Your task to perform on an android device: turn on bluetooth scan Image 0: 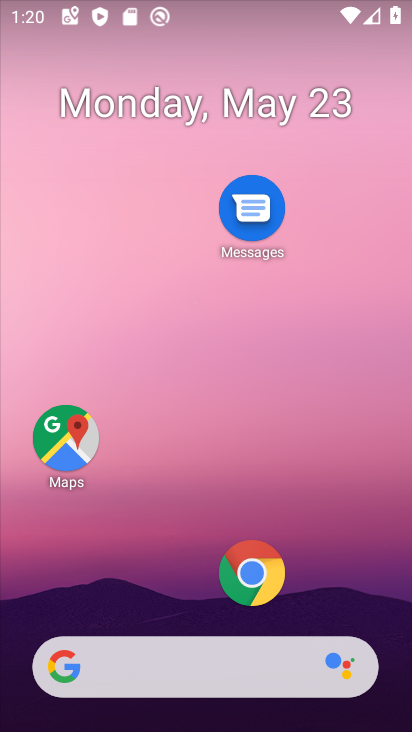
Step 0: drag from (171, 557) to (277, 144)
Your task to perform on an android device: turn on bluetooth scan Image 1: 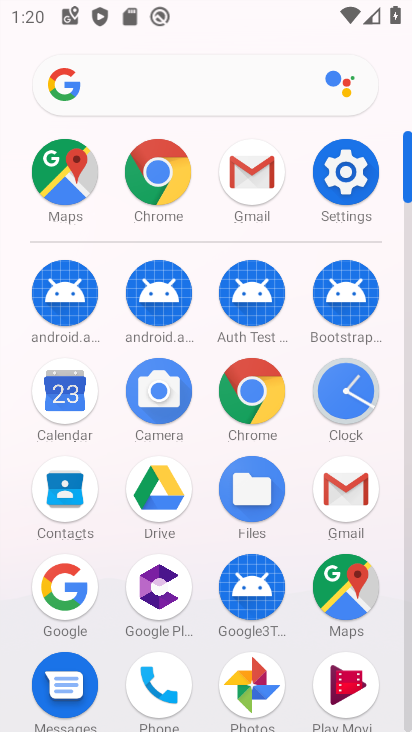
Step 1: click (342, 184)
Your task to perform on an android device: turn on bluetooth scan Image 2: 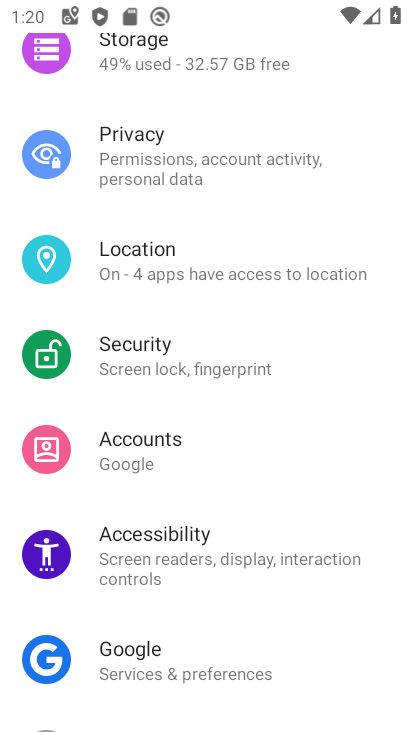
Step 2: drag from (337, 219) to (296, 589)
Your task to perform on an android device: turn on bluetooth scan Image 3: 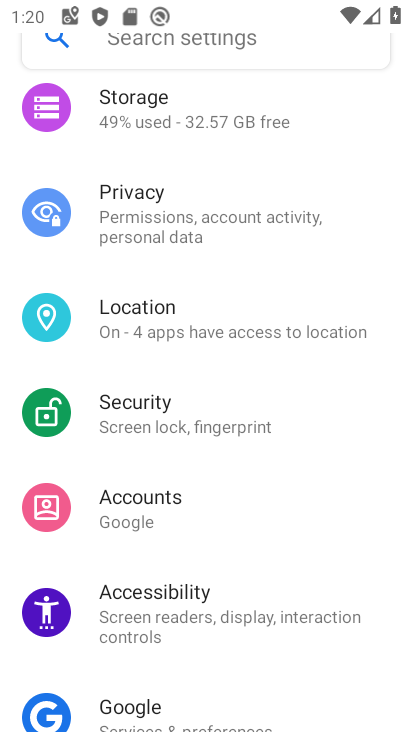
Step 3: drag from (306, 141) to (246, 537)
Your task to perform on an android device: turn on bluetooth scan Image 4: 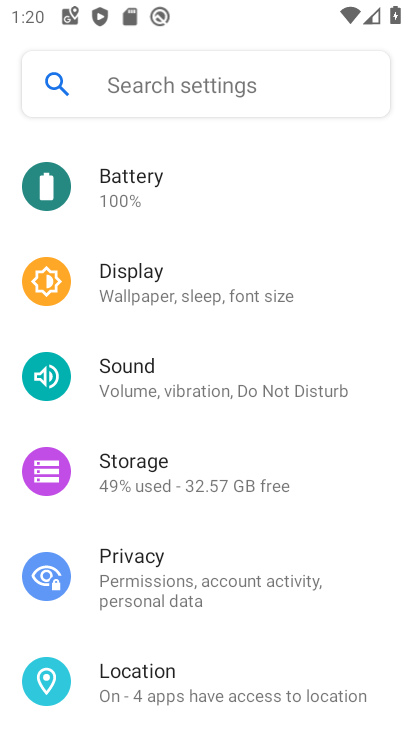
Step 4: drag from (276, 198) to (246, 574)
Your task to perform on an android device: turn on bluetooth scan Image 5: 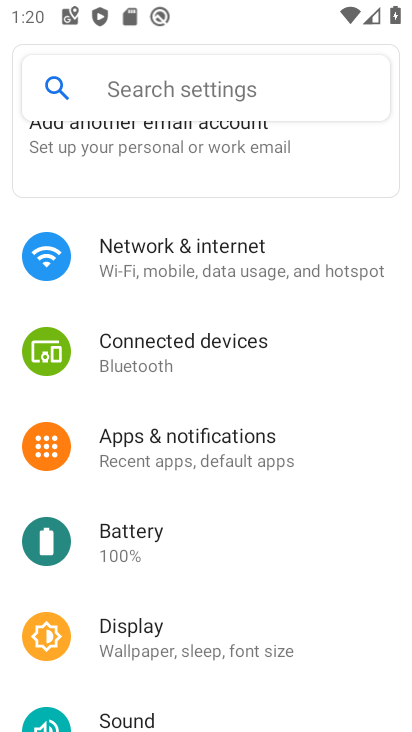
Step 5: click (212, 347)
Your task to perform on an android device: turn on bluetooth scan Image 6: 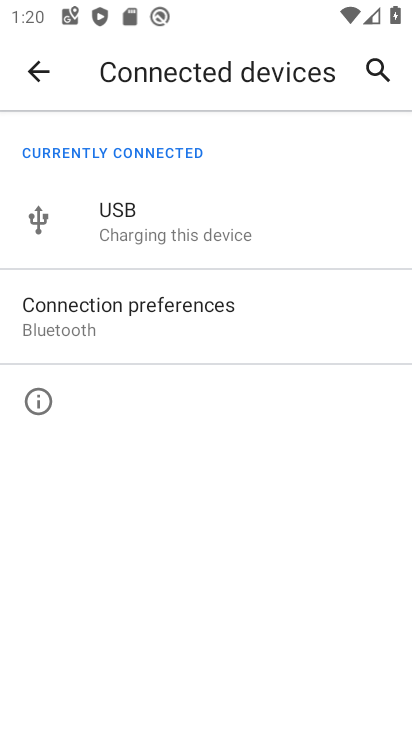
Step 6: click (36, 72)
Your task to perform on an android device: turn on bluetooth scan Image 7: 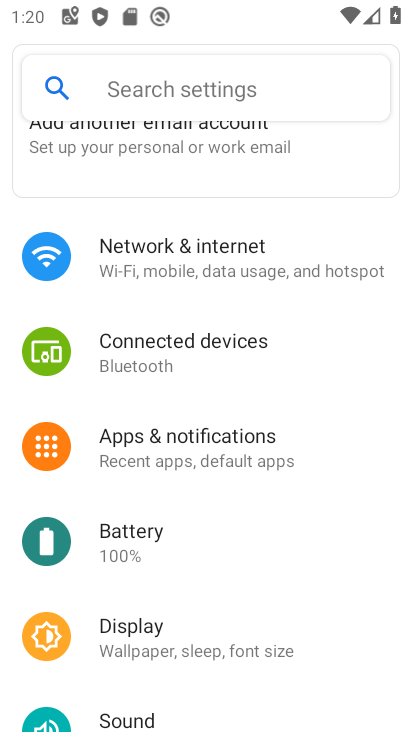
Step 7: click (287, 270)
Your task to perform on an android device: turn on bluetooth scan Image 8: 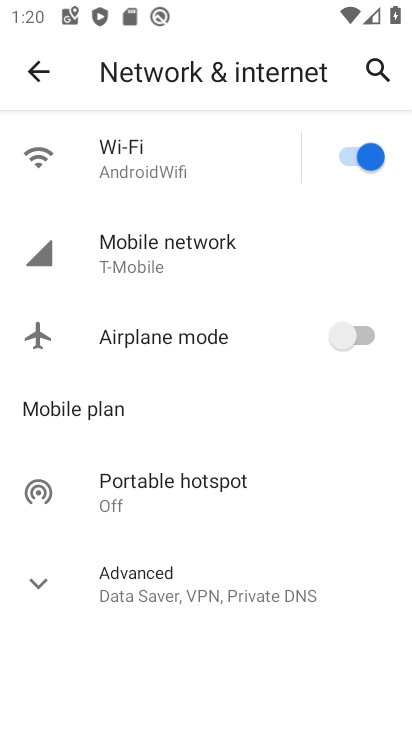
Step 8: click (38, 575)
Your task to perform on an android device: turn on bluetooth scan Image 9: 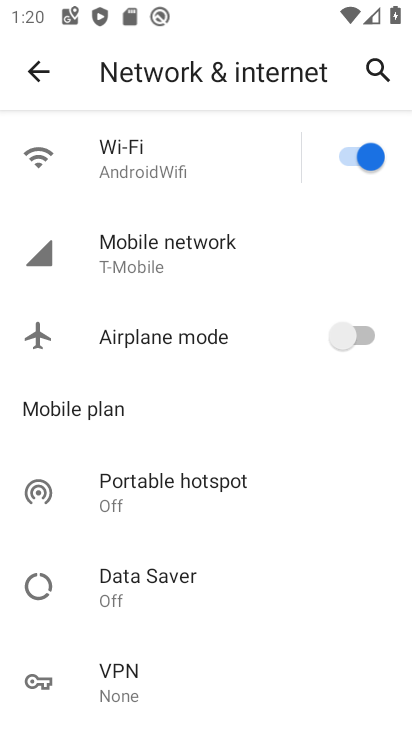
Step 9: drag from (295, 583) to (322, 285)
Your task to perform on an android device: turn on bluetooth scan Image 10: 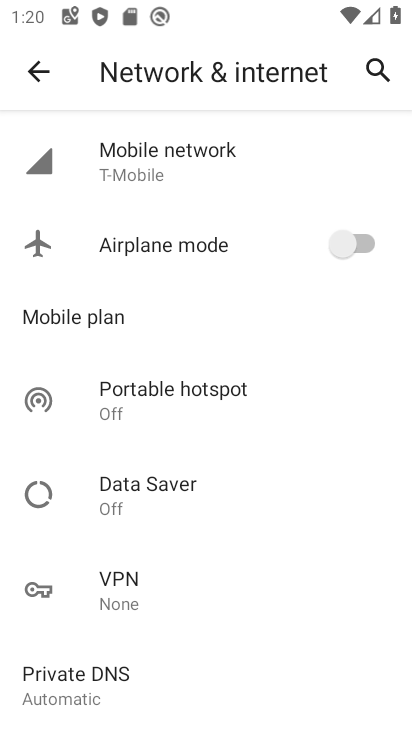
Step 10: drag from (307, 351) to (265, 590)
Your task to perform on an android device: turn on bluetooth scan Image 11: 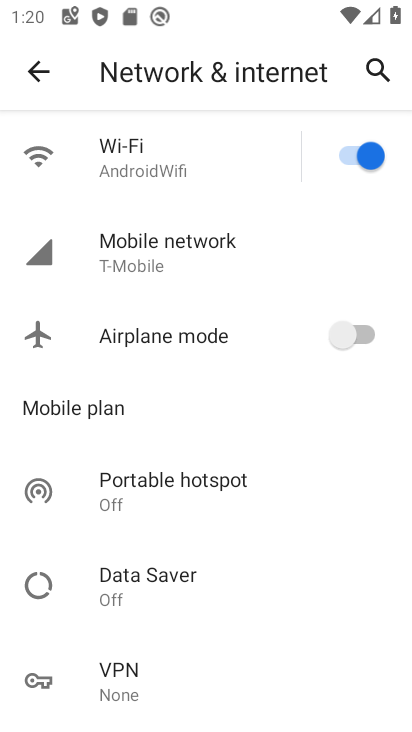
Step 11: press back button
Your task to perform on an android device: turn on bluetooth scan Image 12: 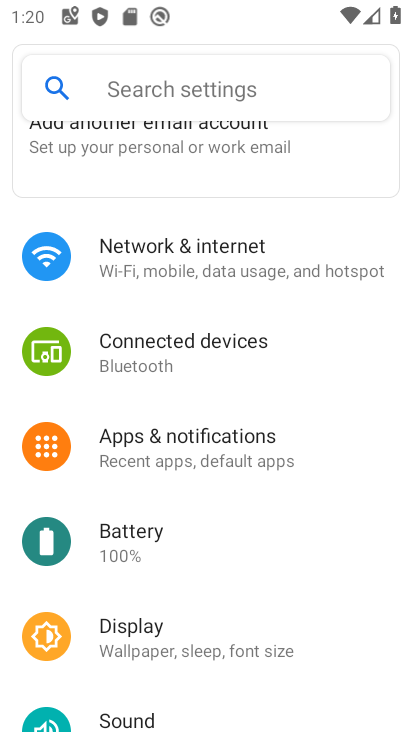
Step 12: click (185, 349)
Your task to perform on an android device: turn on bluetooth scan Image 13: 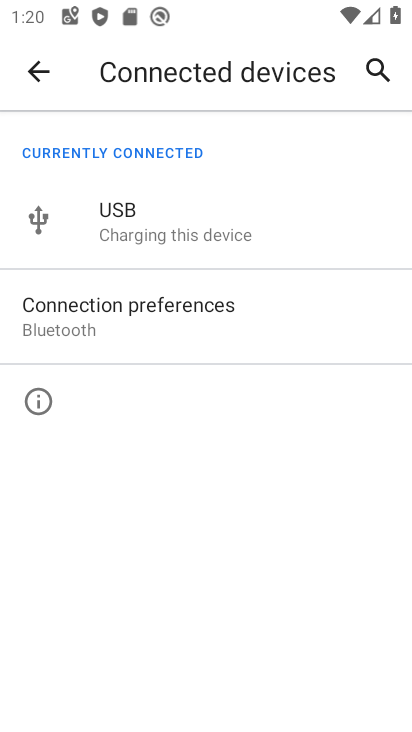
Step 13: press back button
Your task to perform on an android device: turn on bluetooth scan Image 14: 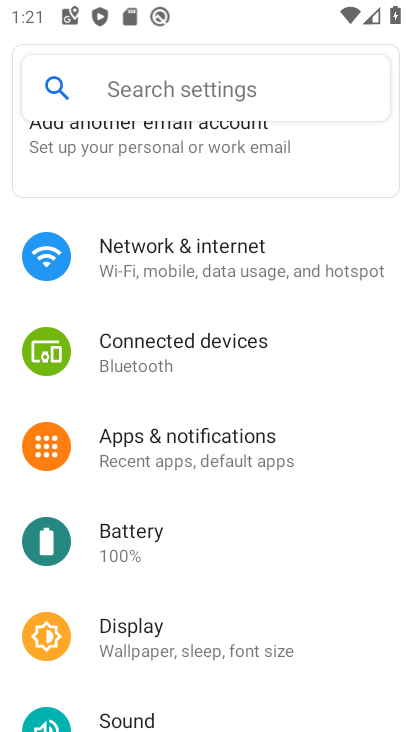
Step 14: drag from (374, 1) to (218, 488)
Your task to perform on an android device: turn on bluetooth scan Image 15: 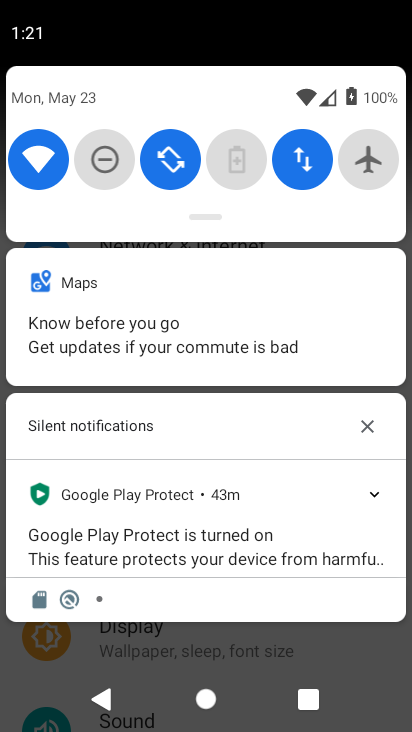
Step 15: drag from (356, 173) to (20, 146)
Your task to perform on an android device: turn on bluetooth scan Image 16: 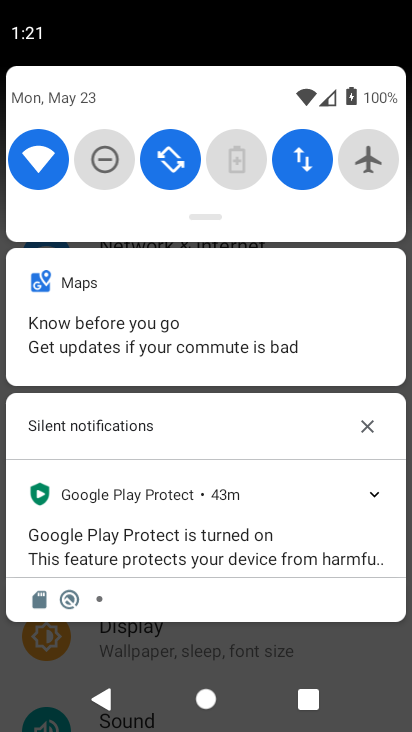
Step 16: click (212, 216)
Your task to perform on an android device: turn on bluetooth scan Image 17: 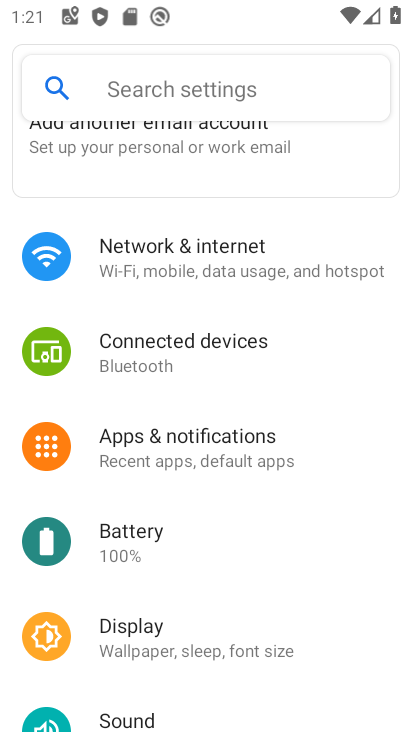
Step 17: drag from (383, 1) to (198, 578)
Your task to perform on an android device: turn on bluetooth scan Image 18: 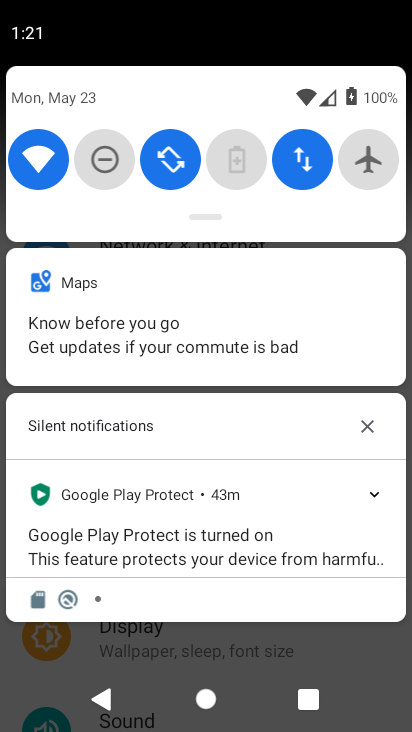
Step 18: drag from (210, 213) to (160, 559)
Your task to perform on an android device: turn on bluetooth scan Image 19: 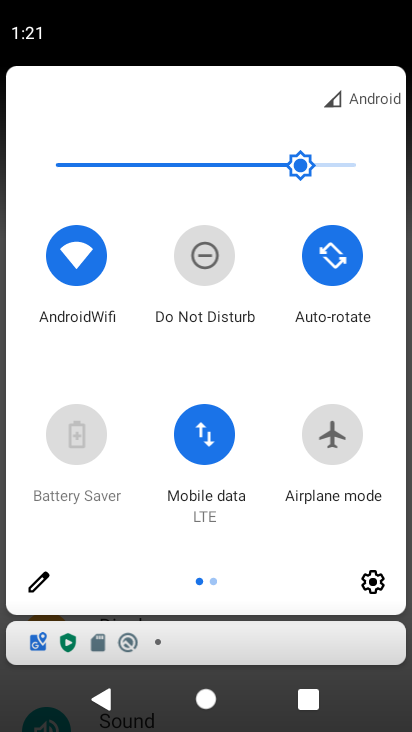
Step 19: drag from (326, 430) to (88, 391)
Your task to perform on an android device: turn on bluetooth scan Image 20: 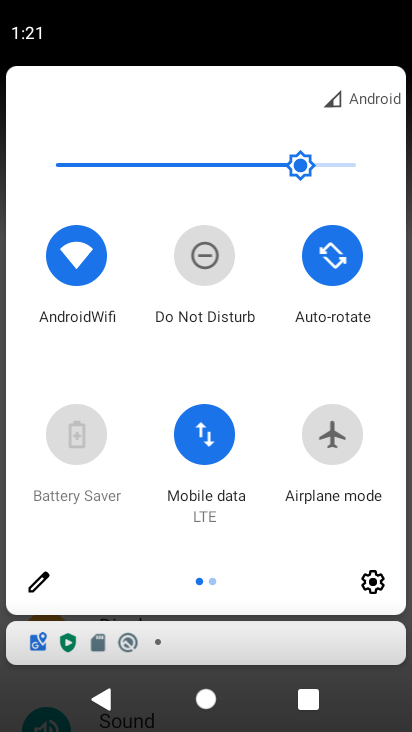
Step 20: drag from (296, 385) to (43, 407)
Your task to perform on an android device: turn on bluetooth scan Image 21: 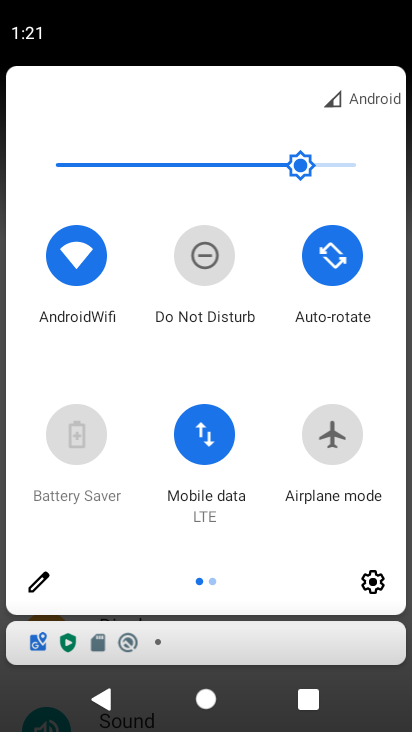
Step 21: drag from (172, 658) to (185, 115)
Your task to perform on an android device: turn on bluetooth scan Image 22: 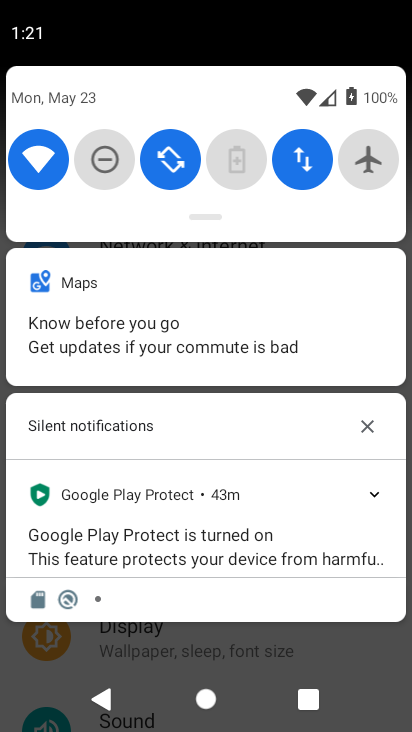
Step 22: click (149, 671)
Your task to perform on an android device: turn on bluetooth scan Image 23: 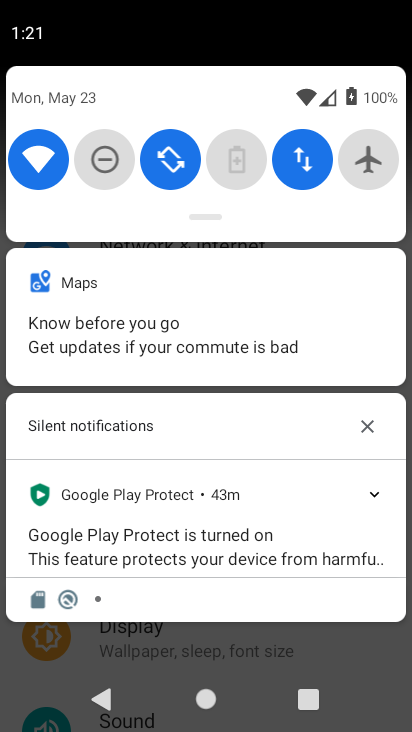
Step 23: drag from (191, 633) to (249, 62)
Your task to perform on an android device: turn on bluetooth scan Image 24: 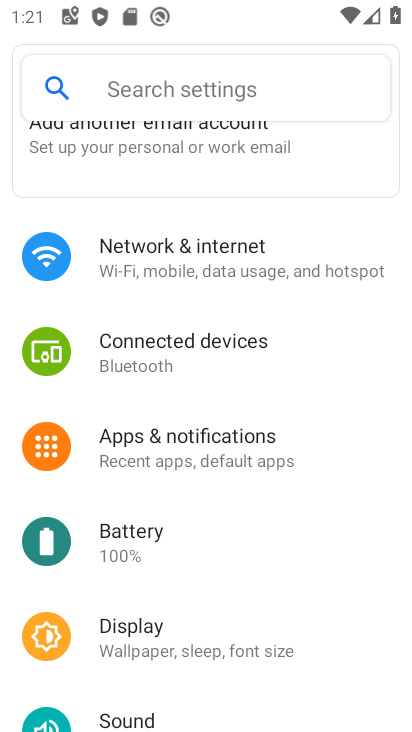
Step 24: drag from (269, 539) to (302, 272)
Your task to perform on an android device: turn on bluetooth scan Image 25: 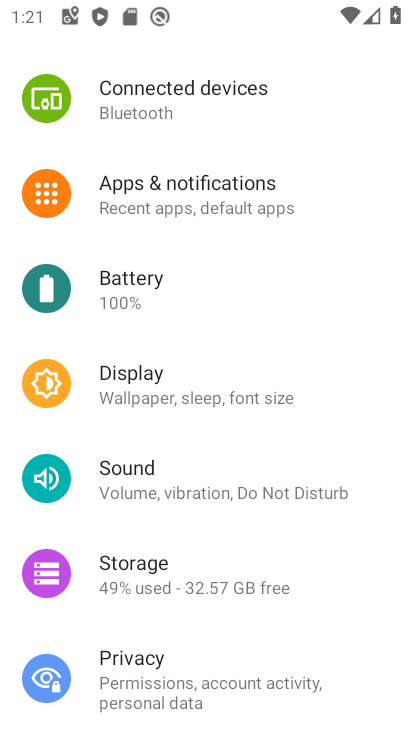
Step 25: drag from (237, 595) to (292, 261)
Your task to perform on an android device: turn on bluetooth scan Image 26: 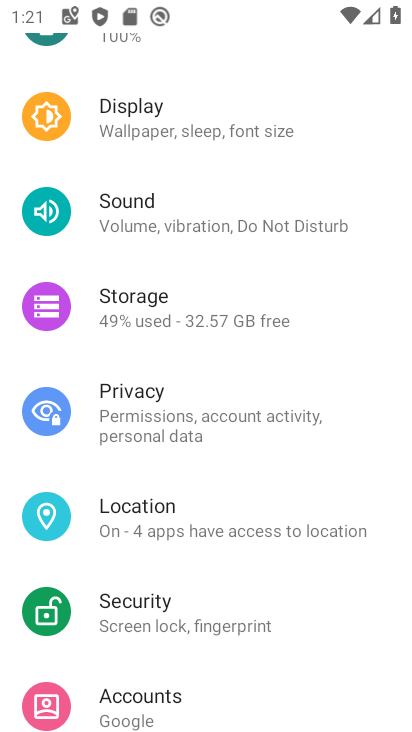
Step 26: click (219, 528)
Your task to perform on an android device: turn on bluetooth scan Image 27: 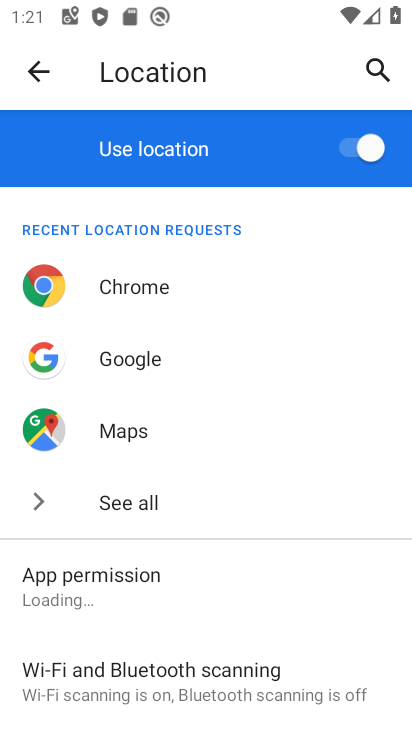
Step 27: drag from (294, 609) to (295, 346)
Your task to perform on an android device: turn on bluetooth scan Image 28: 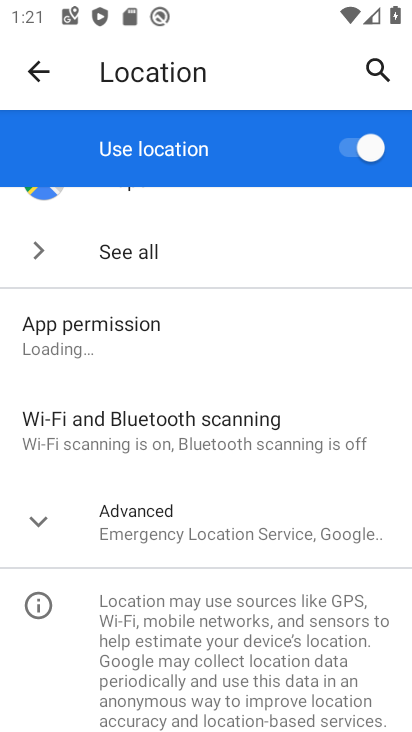
Step 28: click (187, 446)
Your task to perform on an android device: turn on bluetooth scan Image 29: 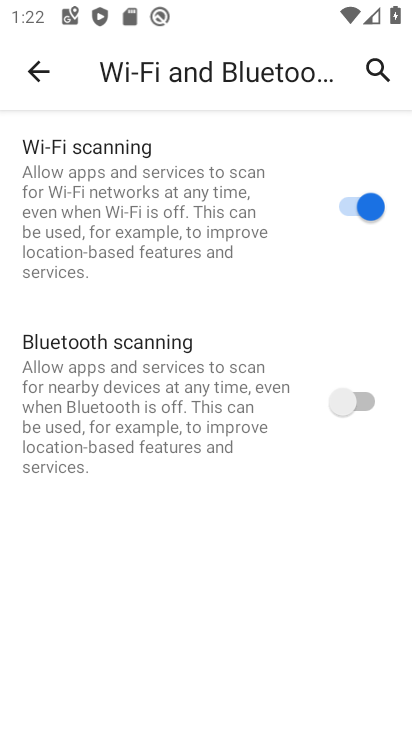
Step 29: click (354, 396)
Your task to perform on an android device: turn on bluetooth scan Image 30: 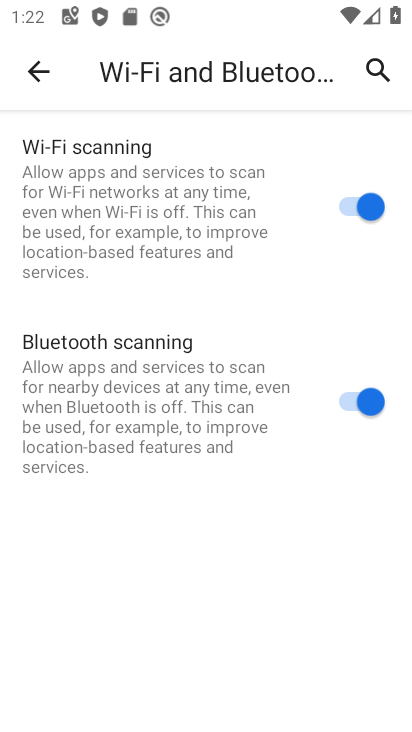
Step 30: task complete